Your task to perform on an android device: Is it going to rain today? Image 0: 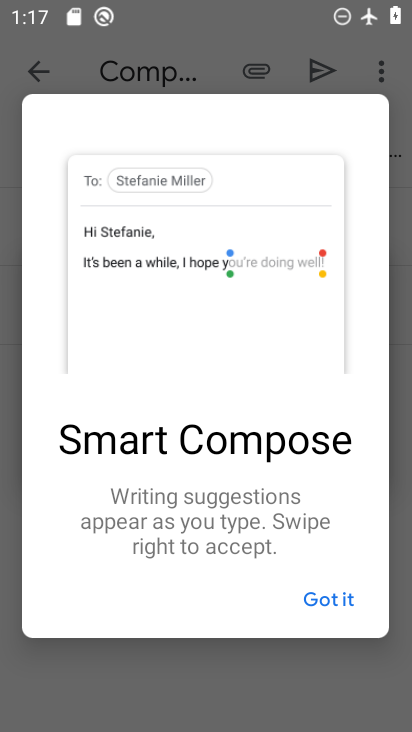
Step 0: press home button
Your task to perform on an android device: Is it going to rain today? Image 1: 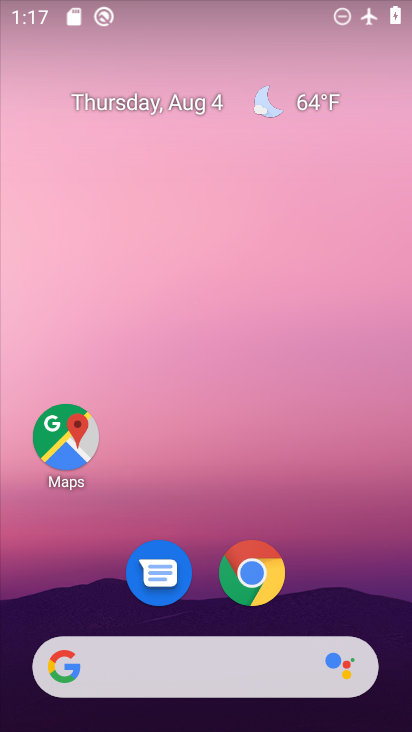
Step 1: drag from (340, 493) to (335, 33)
Your task to perform on an android device: Is it going to rain today? Image 2: 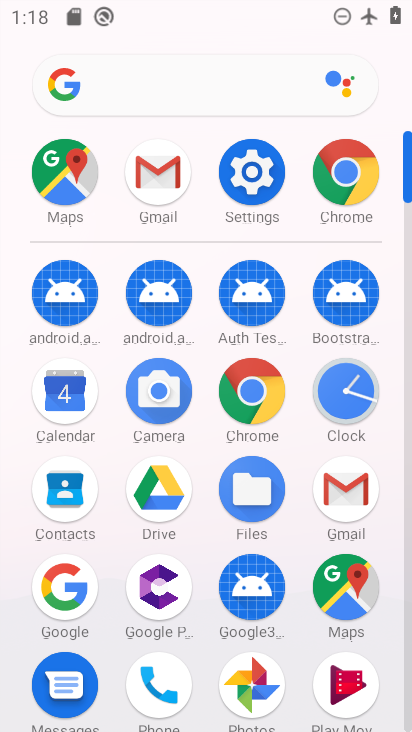
Step 2: press home button
Your task to perform on an android device: Is it going to rain today? Image 3: 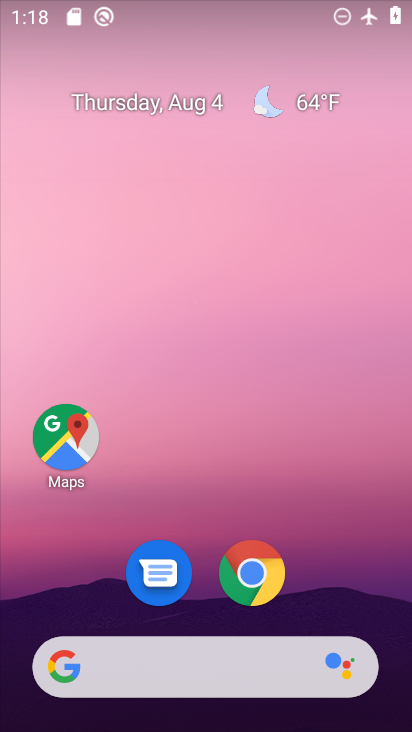
Step 3: click (311, 102)
Your task to perform on an android device: Is it going to rain today? Image 4: 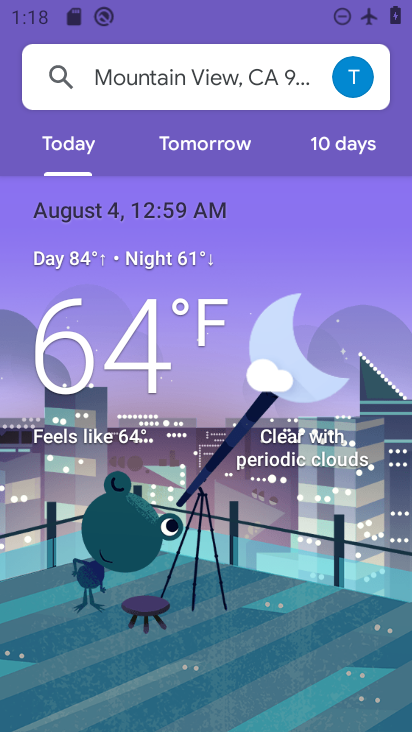
Step 4: task complete